Your task to perform on an android device: Show the shopping cart on ebay.com. Add "beats solo 3" to the cart on ebay.com, then select checkout. Image 0: 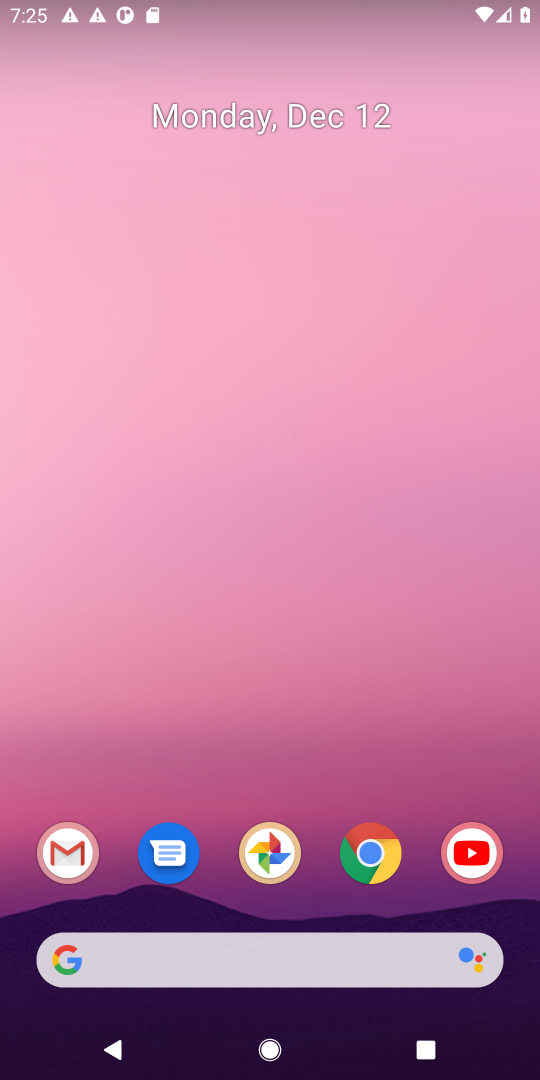
Step 0: click (376, 848)
Your task to perform on an android device: Show the shopping cart on ebay.com. Add "beats solo 3" to the cart on ebay.com, then select checkout. Image 1: 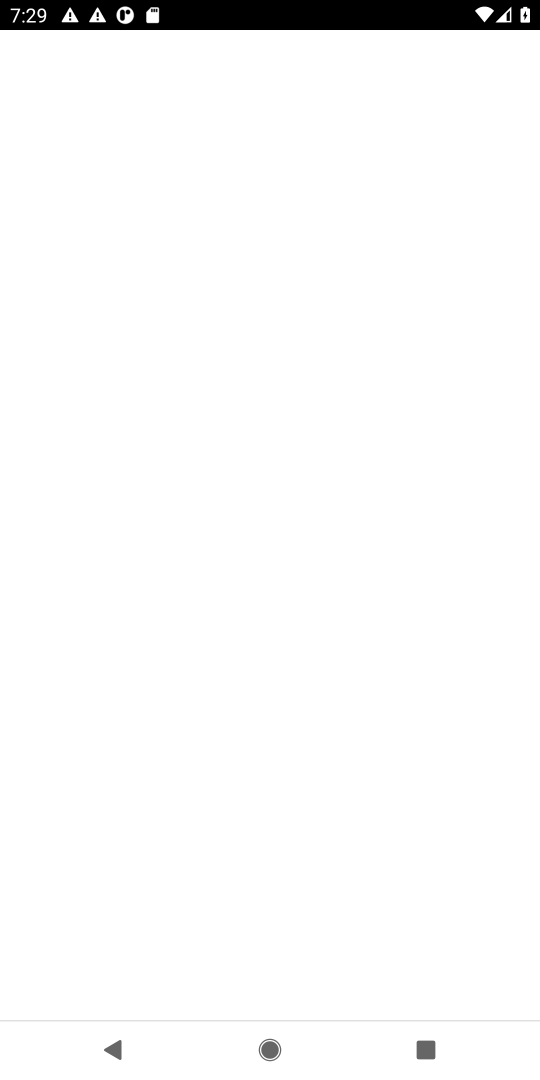
Step 1: task complete